Your task to perform on an android device: Search for pizza restaurants on Maps Image 0: 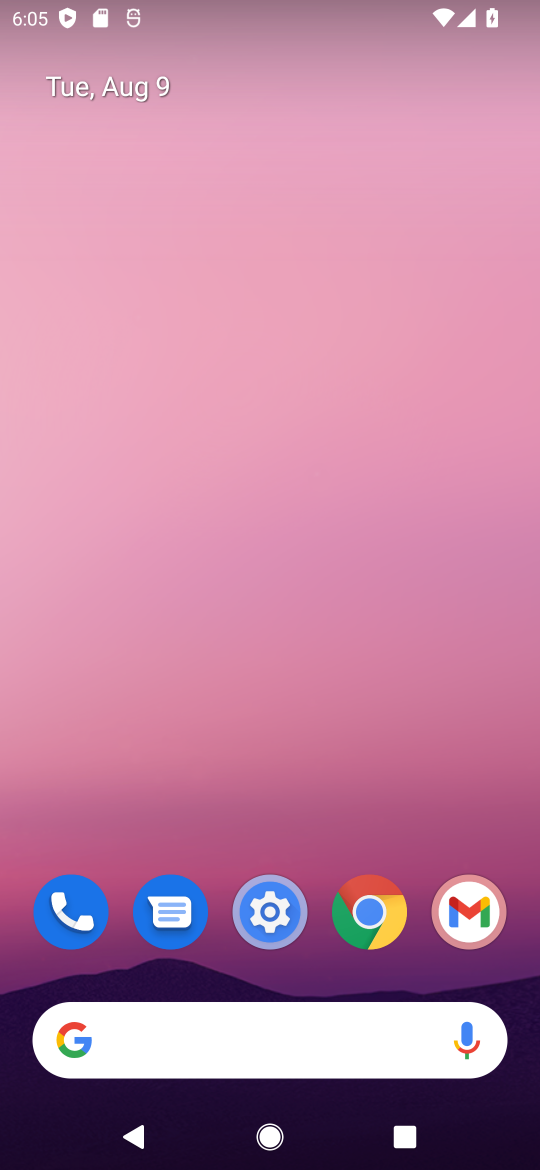
Step 0: press home button
Your task to perform on an android device: Search for pizza restaurants on Maps Image 1: 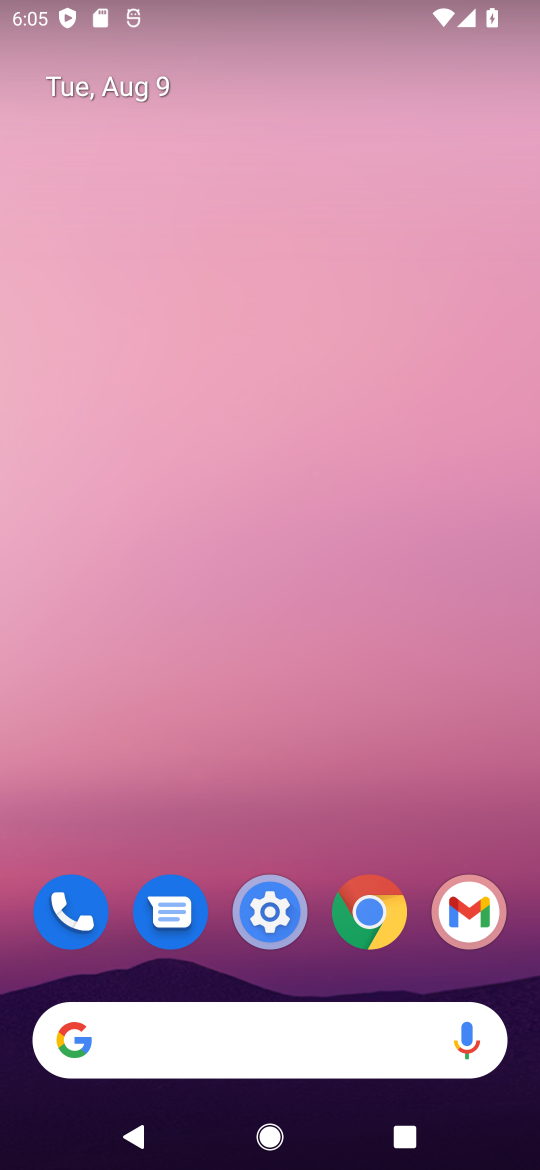
Step 1: drag from (313, 809) to (316, 233)
Your task to perform on an android device: Search for pizza restaurants on Maps Image 2: 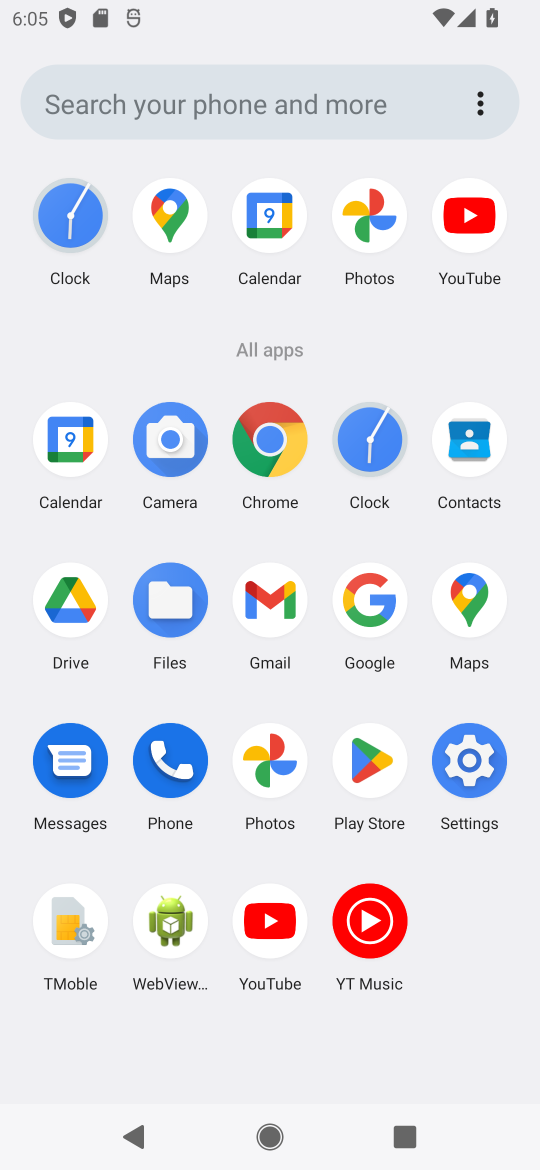
Step 2: click (474, 593)
Your task to perform on an android device: Search for pizza restaurants on Maps Image 3: 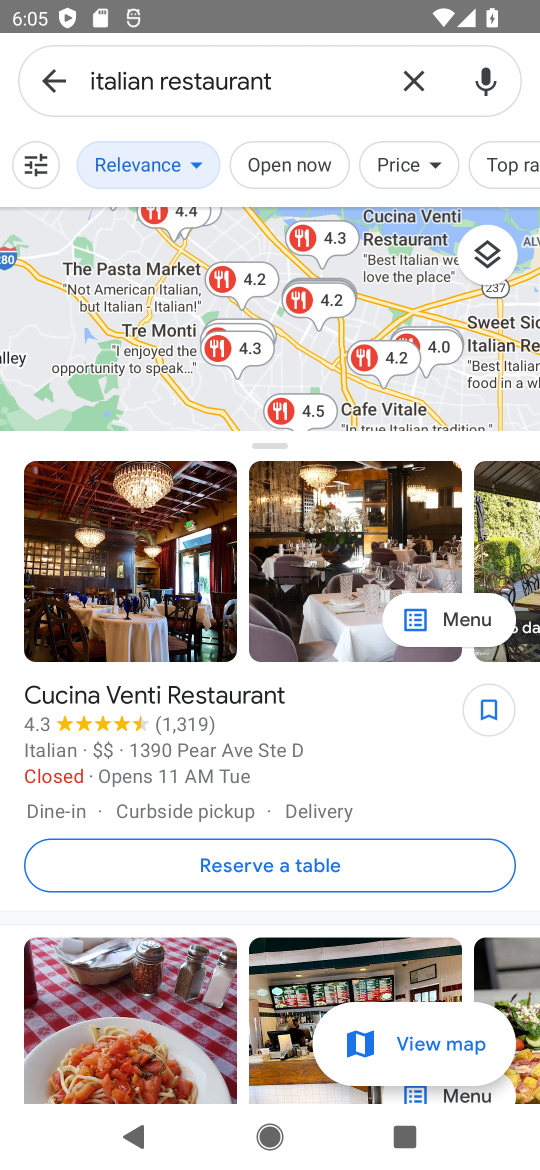
Step 3: click (412, 80)
Your task to perform on an android device: Search for pizza restaurants on Maps Image 4: 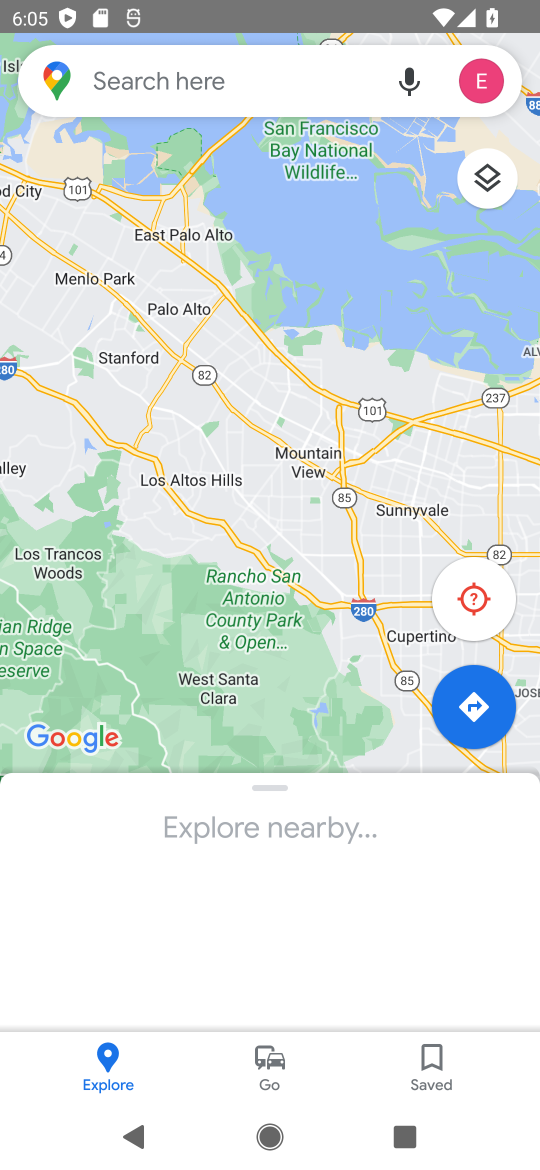
Step 4: click (190, 68)
Your task to perform on an android device: Search for pizza restaurants on Maps Image 5: 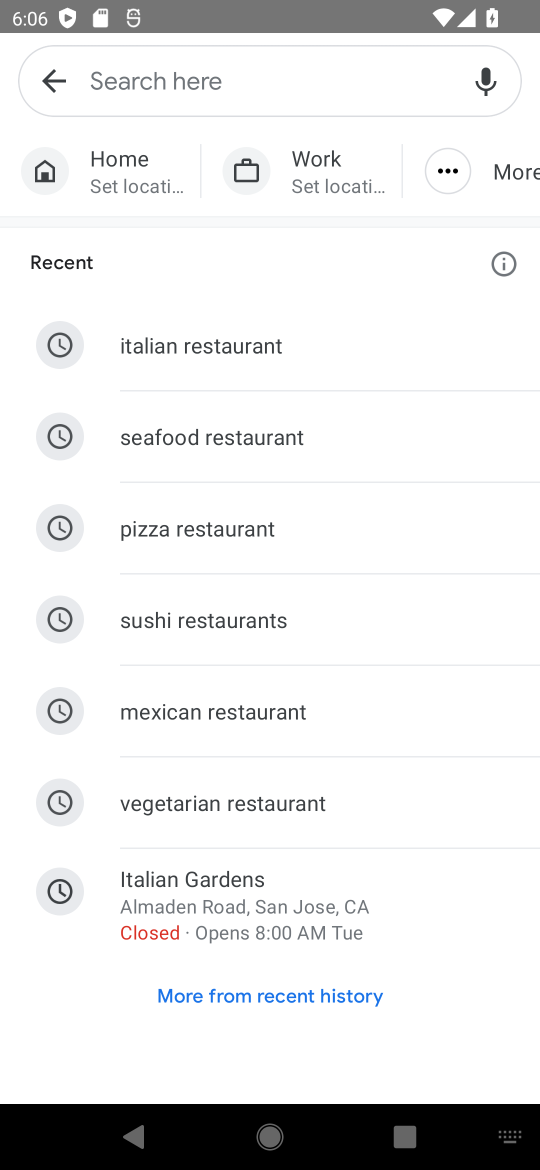
Step 5: click (196, 530)
Your task to perform on an android device: Search for pizza restaurants on Maps Image 6: 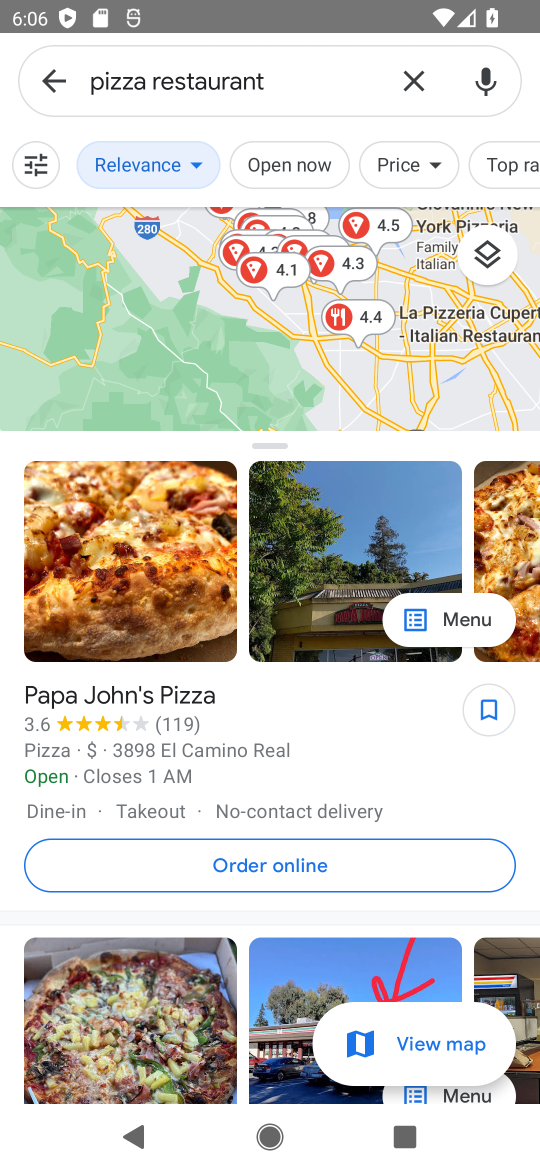
Step 6: task complete